Your task to perform on an android device: Is it going to rain today? Image 0: 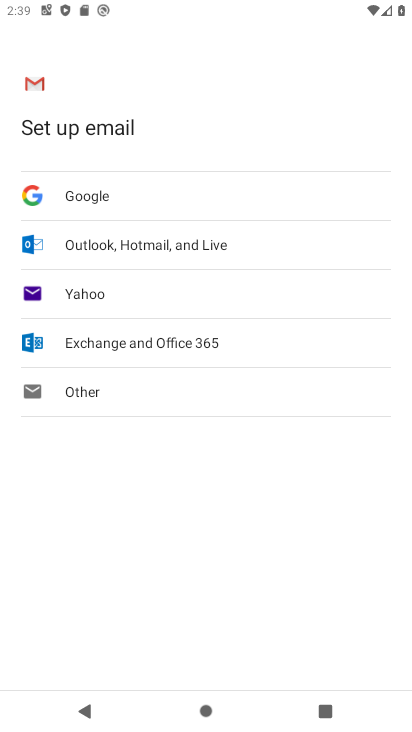
Step 0: press home button
Your task to perform on an android device: Is it going to rain today? Image 1: 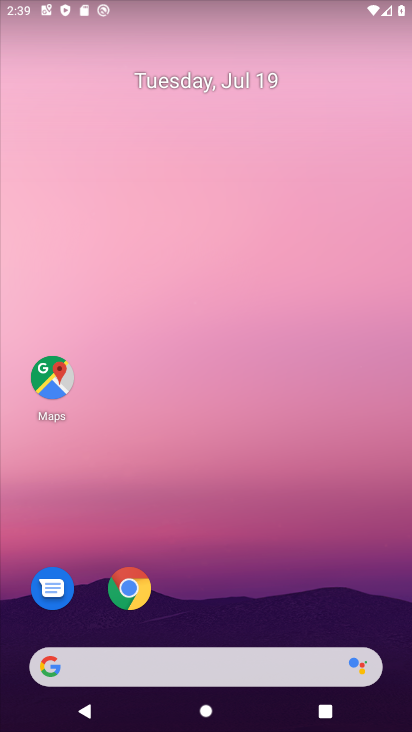
Step 1: click (161, 673)
Your task to perform on an android device: Is it going to rain today? Image 2: 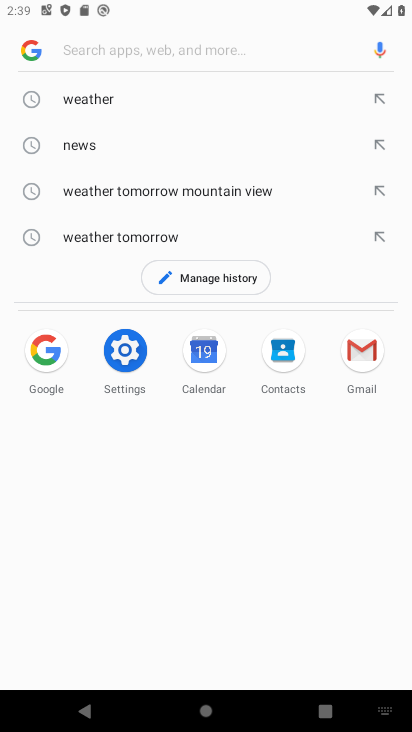
Step 2: click (94, 86)
Your task to perform on an android device: Is it going to rain today? Image 3: 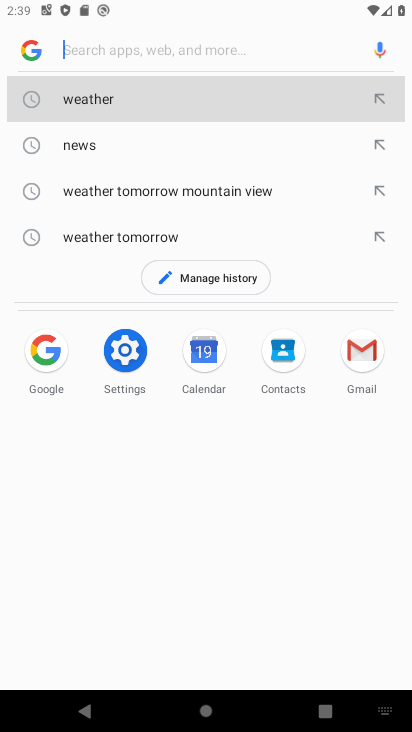
Step 3: click (85, 95)
Your task to perform on an android device: Is it going to rain today? Image 4: 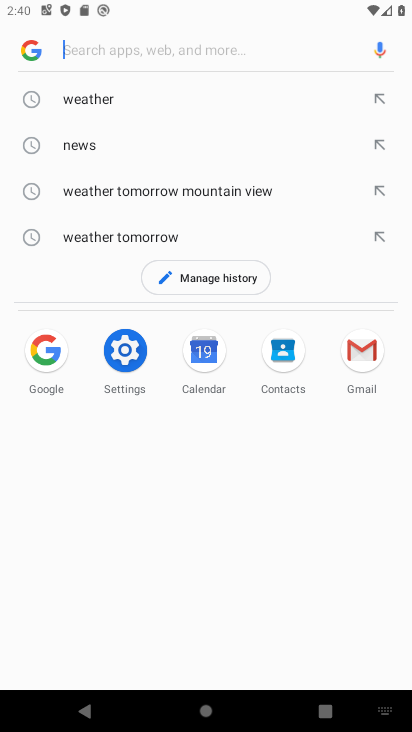
Step 4: click (108, 106)
Your task to perform on an android device: Is it going to rain today? Image 5: 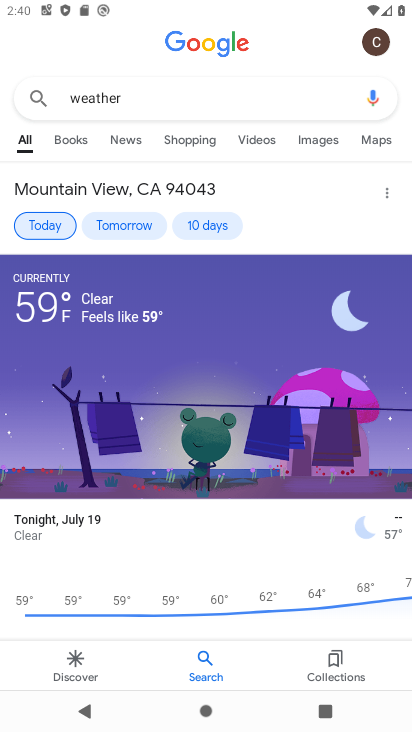
Step 5: task complete